Your task to perform on an android device: Add "razer nari" to the cart on amazon.com Image 0: 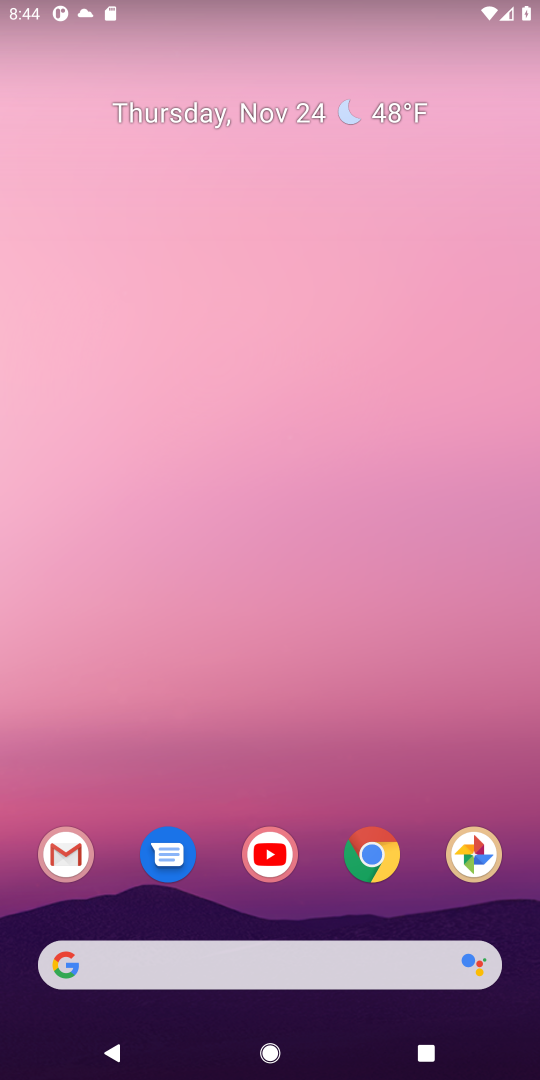
Step 0: click (365, 863)
Your task to perform on an android device: Add "razer nari" to the cart on amazon.com Image 1: 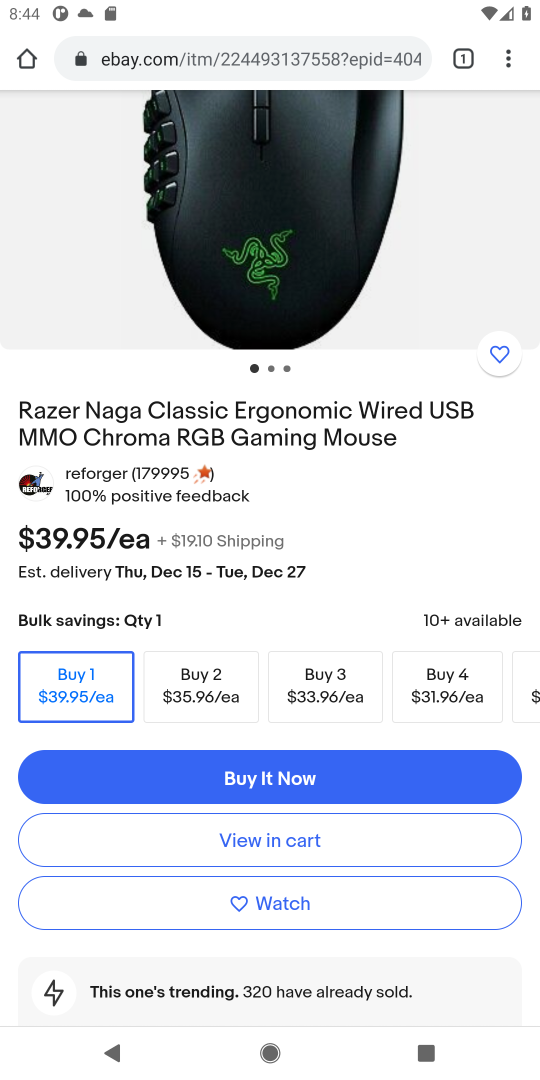
Step 1: click (198, 63)
Your task to perform on an android device: Add "razer nari" to the cart on amazon.com Image 2: 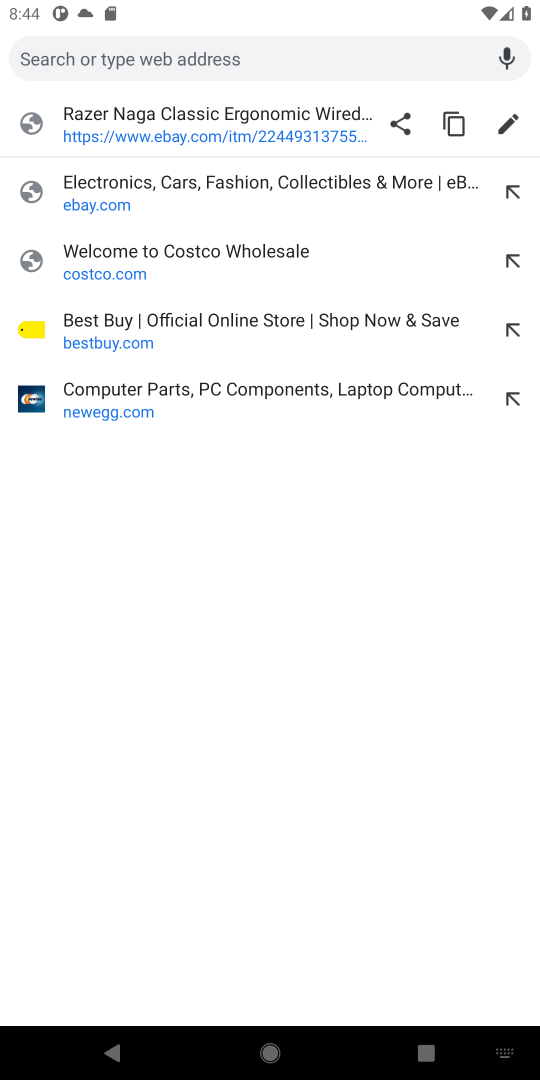
Step 2: type "amazon.com"
Your task to perform on an android device: Add "razer nari" to the cart on amazon.com Image 3: 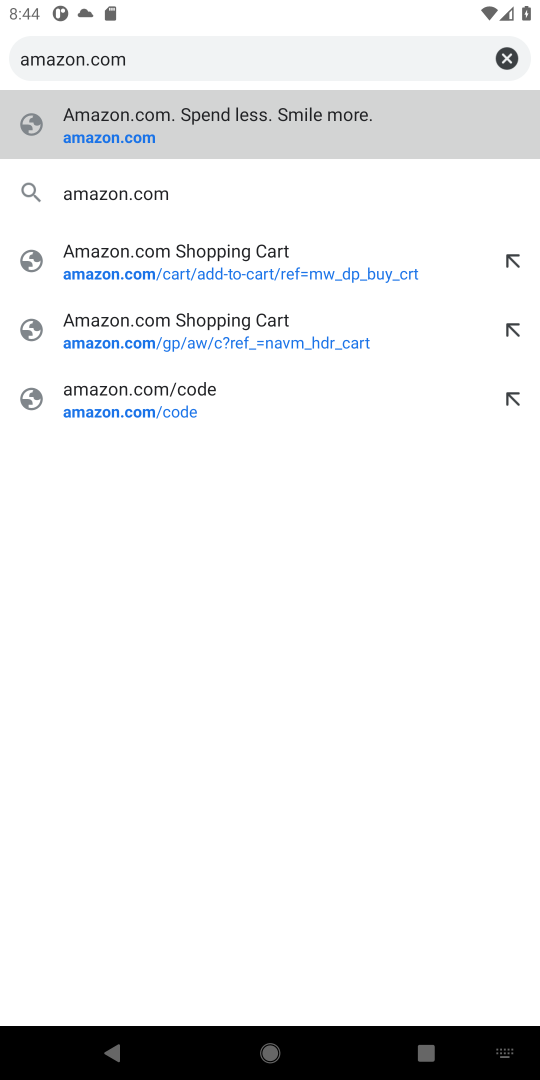
Step 3: click (86, 140)
Your task to perform on an android device: Add "razer nari" to the cart on amazon.com Image 4: 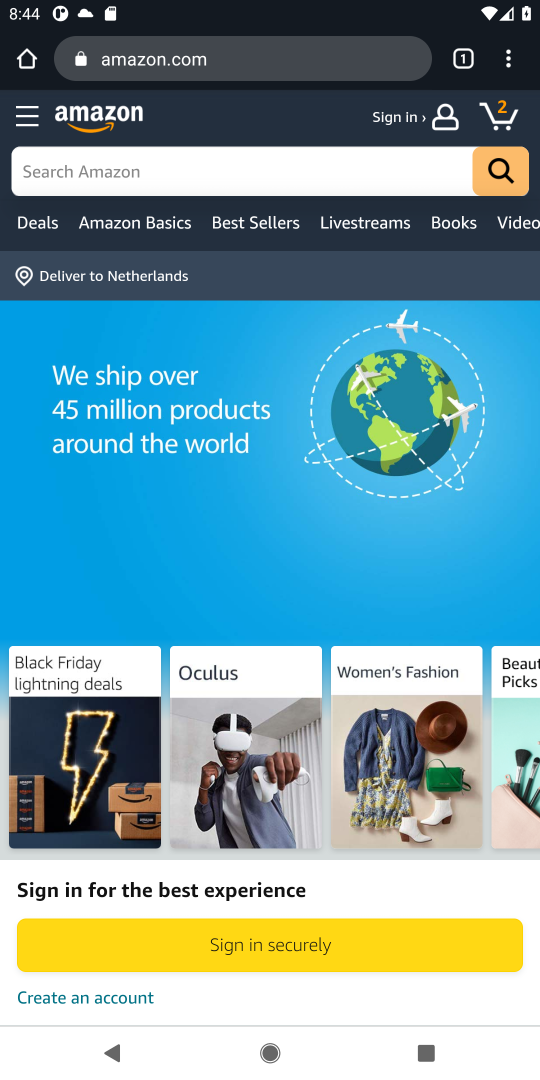
Step 4: click (113, 168)
Your task to perform on an android device: Add "razer nari" to the cart on amazon.com Image 5: 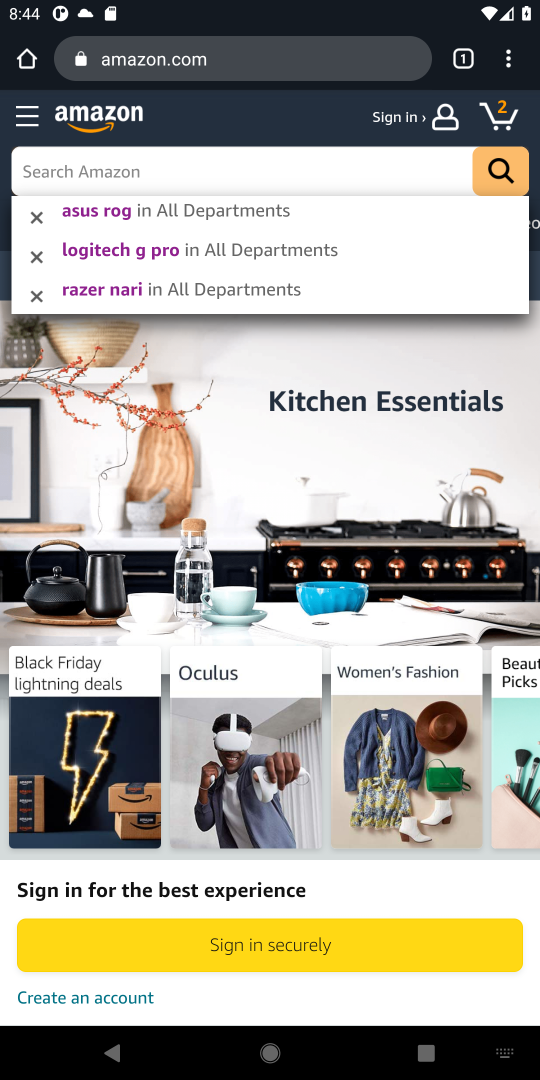
Step 5: type "razer nari"
Your task to perform on an android device: Add "razer nari" to the cart on amazon.com Image 6: 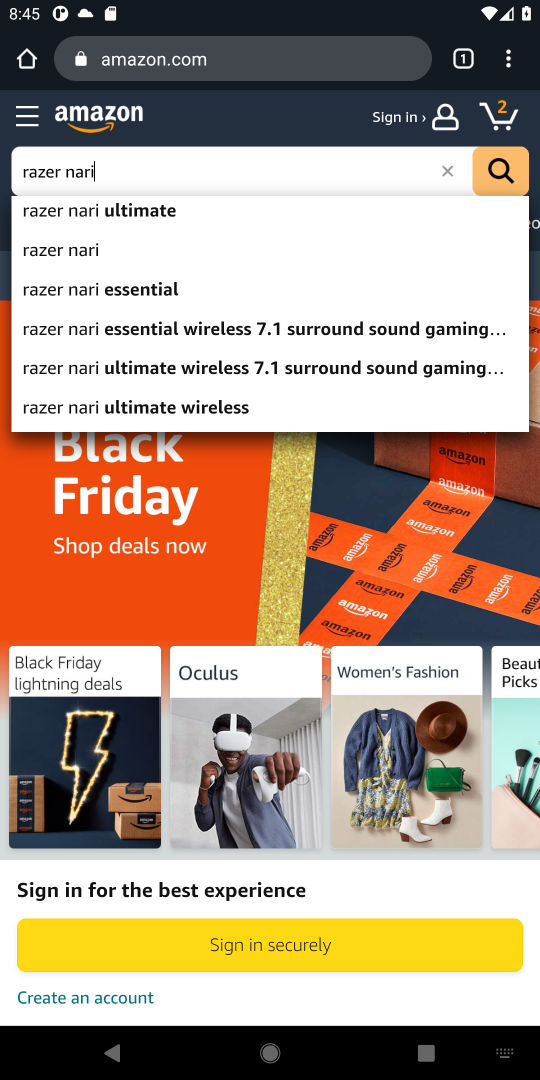
Step 6: click (78, 254)
Your task to perform on an android device: Add "razer nari" to the cart on amazon.com Image 7: 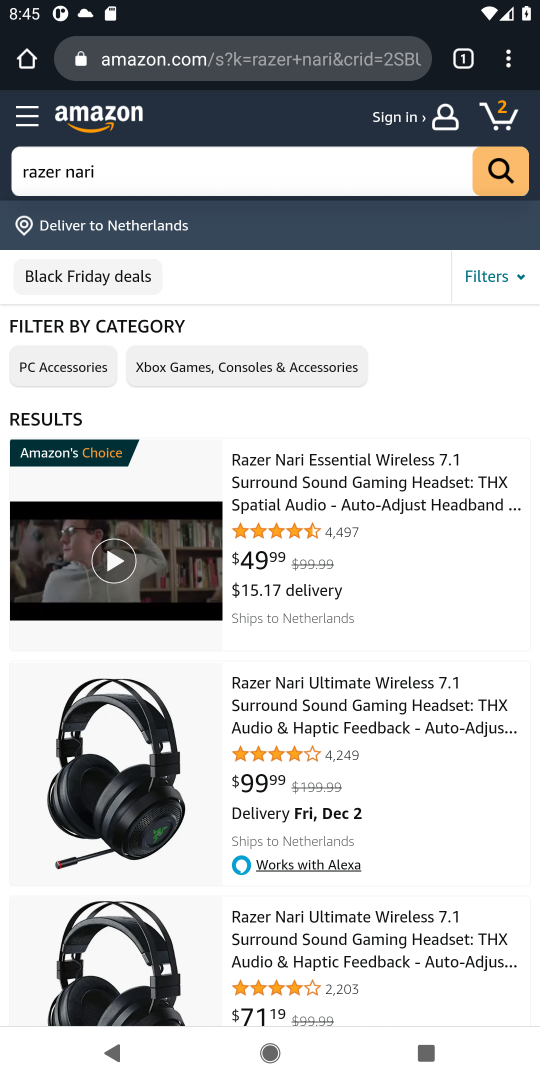
Step 7: click (312, 498)
Your task to perform on an android device: Add "razer nari" to the cart on amazon.com Image 8: 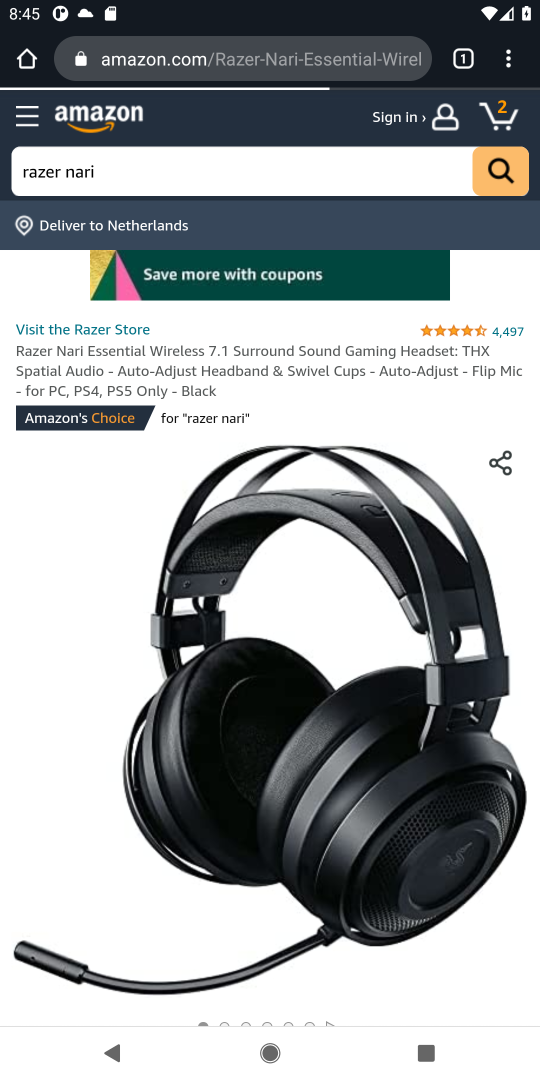
Step 8: drag from (254, 661) to (275, 300)
Your task to perform on an android device: Add "razer nari" to the cart on amazon.com Image 9: 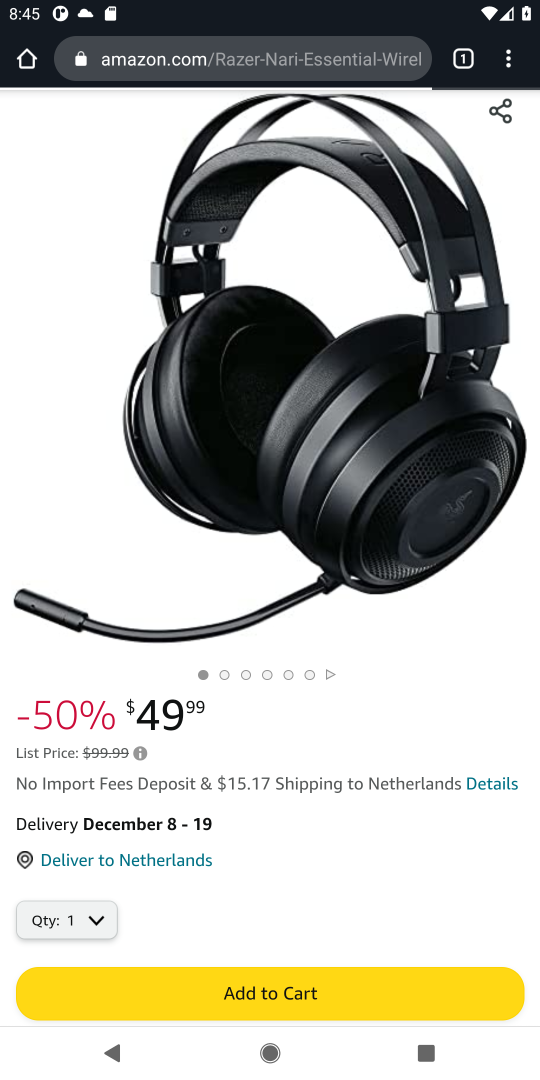
Step 9: click (266, 994)
Your task to perform on an android device: Add "razer nari" to the cart on amazon.com Image 10: 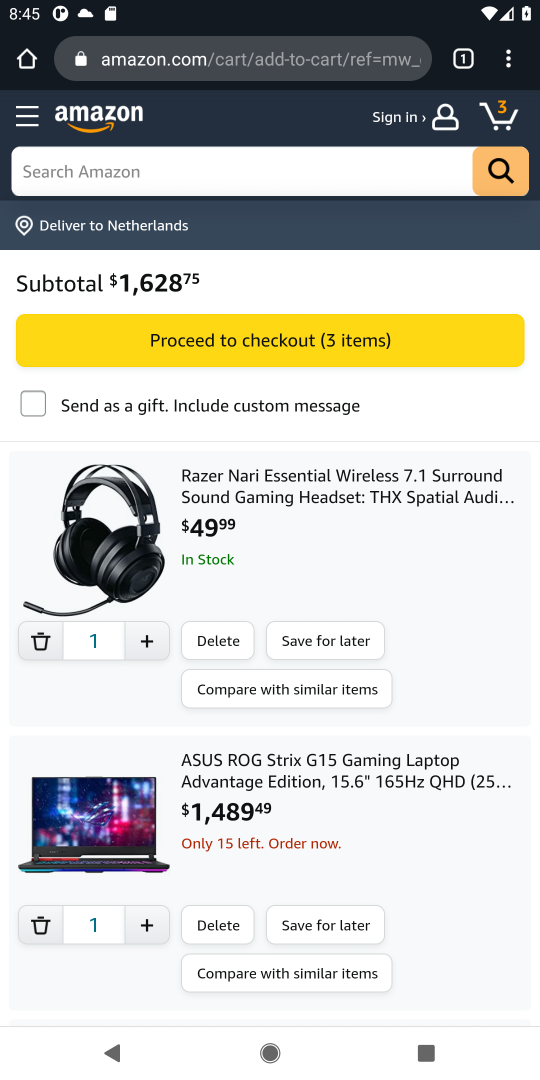
Step 10: task complete